Your task to perform on an android device: Open the stopwatch Image 0: 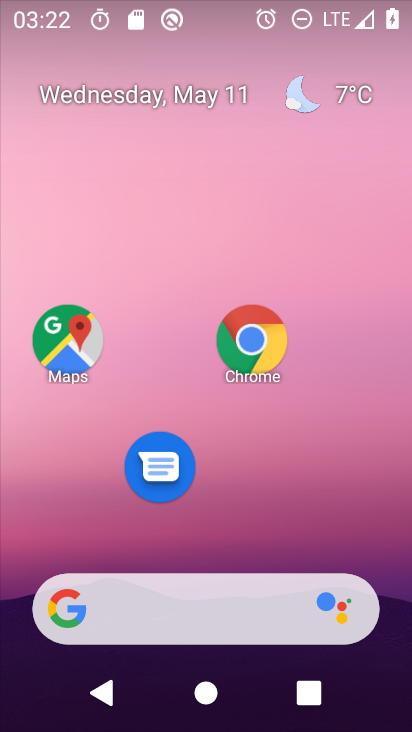
Step 0: drag from (194, 590) to (277, 212)
Your task to perform on an android device: Open the stopwatch Image 1: 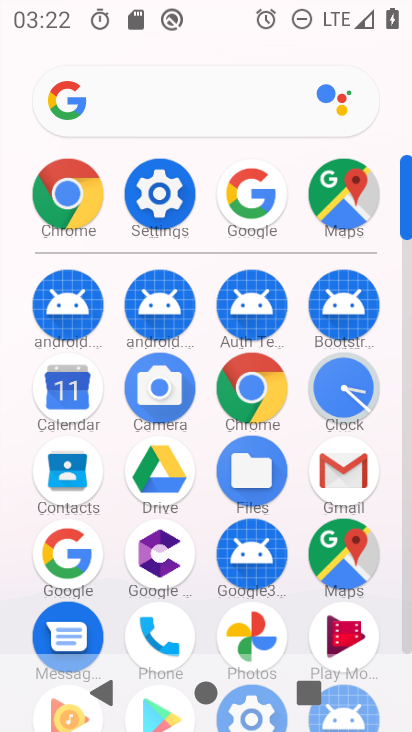
Step 1: click (353, 407)
Your task to perform on an android device: Open the stopwatch Image 2: 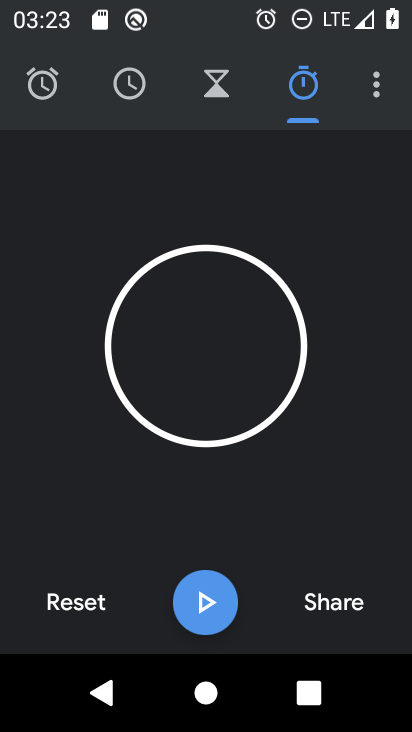
Step 2: task complete